Your task to perform on an android device: Toggle the flashlight Image 0: 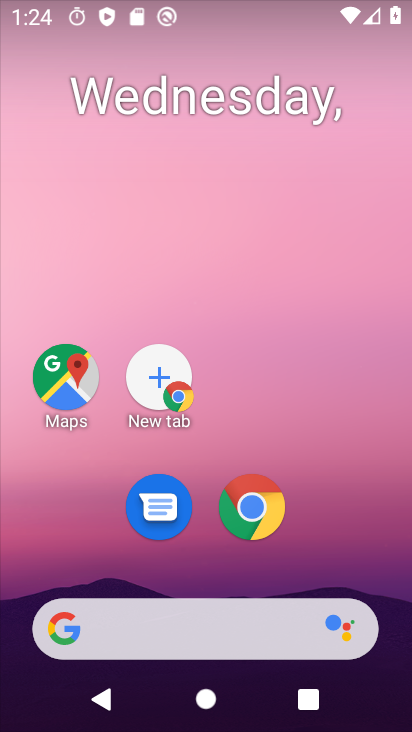
Step 0: drag from (313, 432) to (313, 65)
Your task to perform on an android device: Toggle the flashlight Image 1: 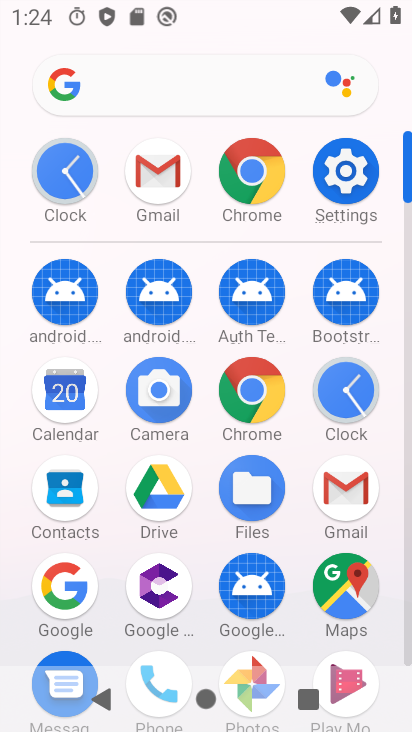
Step 1: click (335, 170)
Your task to perform on an android device: Toggle the flashlight Image 2: 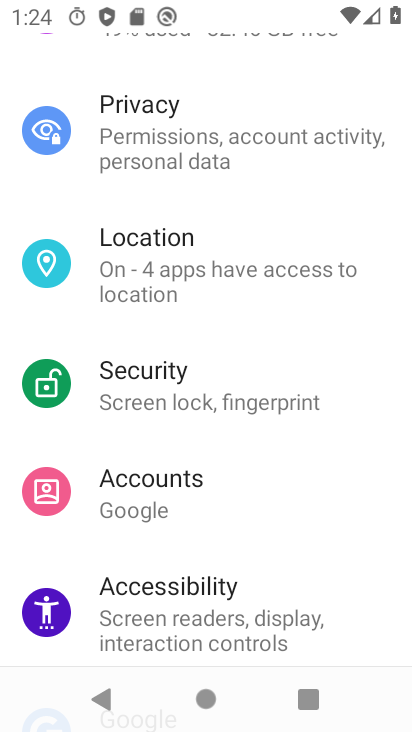
Step 2: task complete